Your task to perform on an android device: open app "File Manager" (install if not already installed) Image 0: 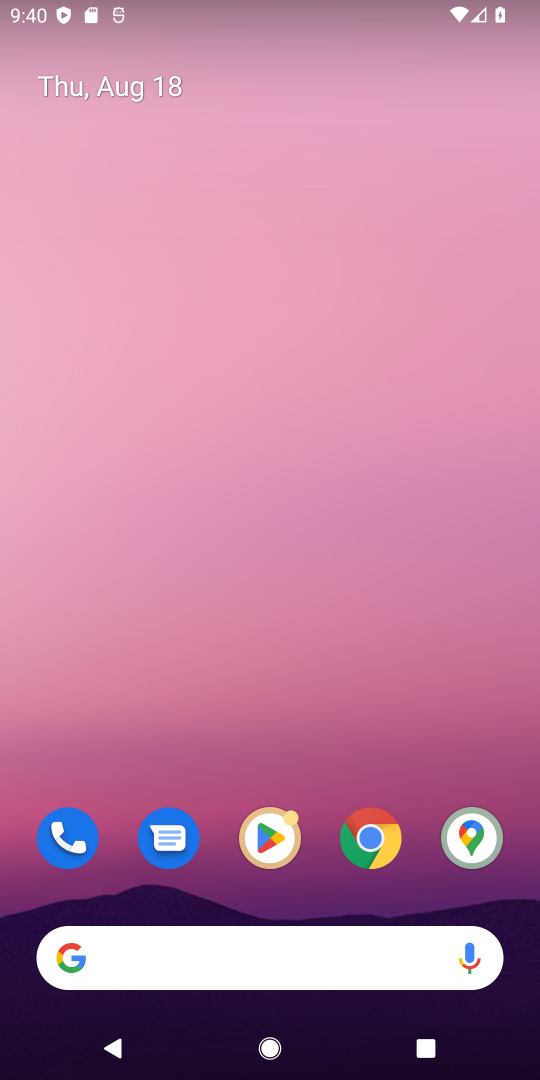
Step 0: click (278, 835)
Your task to perform on an android device: open app "File Manager" (install if not already installed) Image 1: 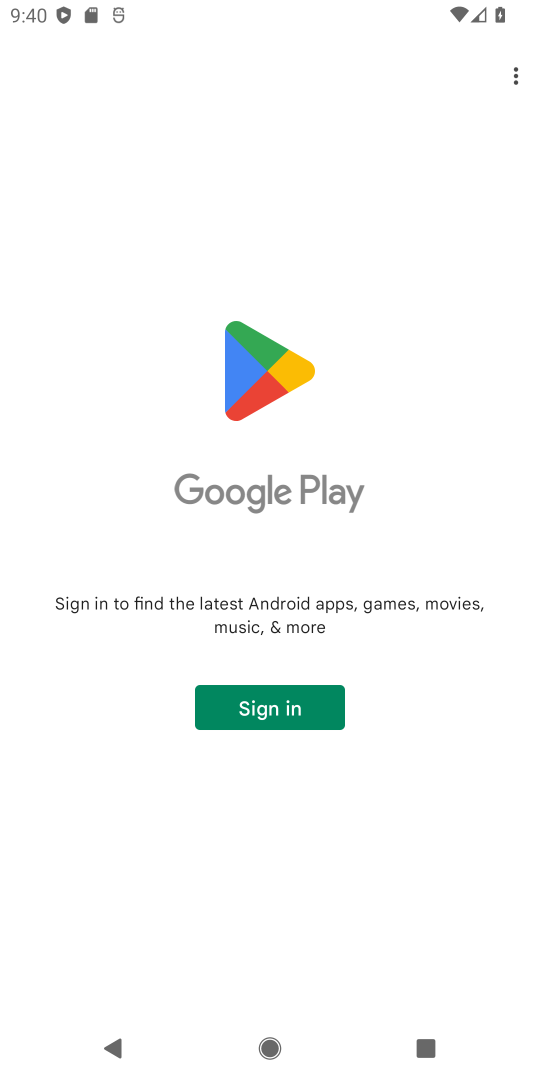
Step 1: task complete